Your task to perform on an android device: Search for seafood restaurants on Google Maps Image 0: 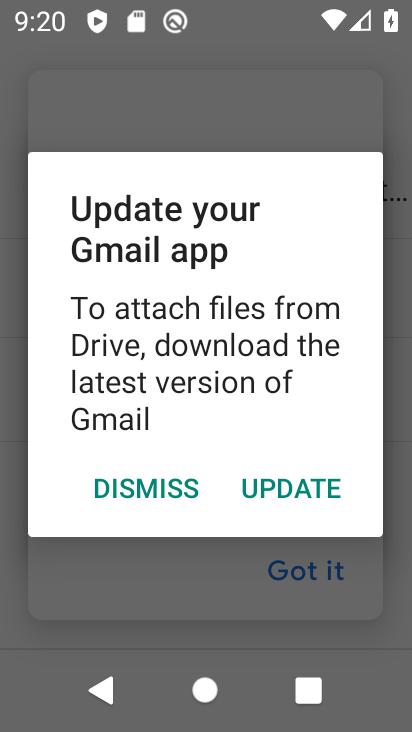
Step 0: press home button
Your task to perform on an android device: Search for seafood restaurants on Google Maps Image 1: 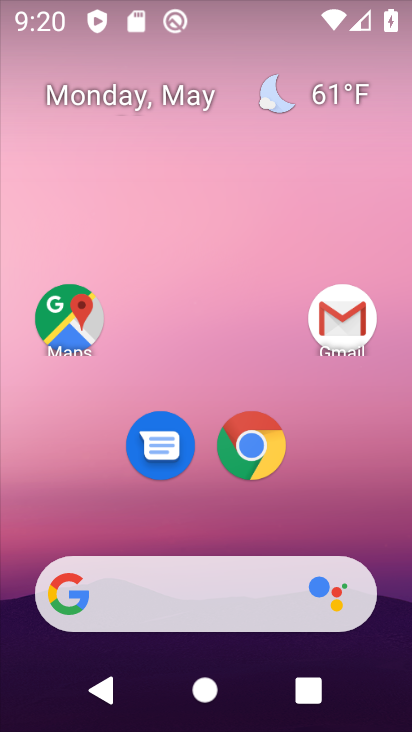
Step 1: drag from (387, 541) to (364, 194)
Your task to perform on an android device: Search for seafood restaurants on Google Maps Image 2: 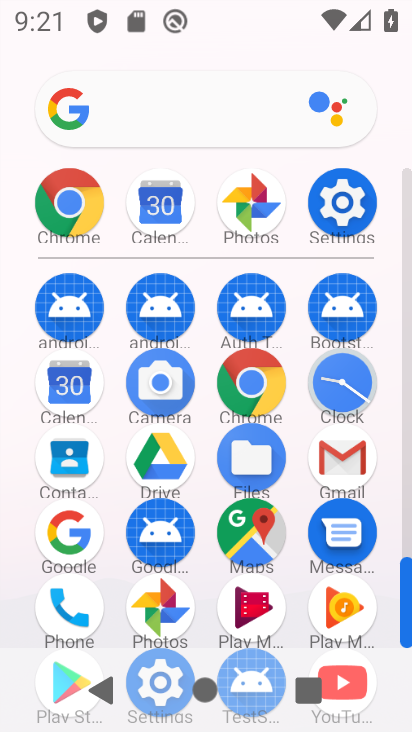
Step 2: click (264, 541)
Your task to perform on an android device: Search for seafood restaurants on Google Maps Image 3: 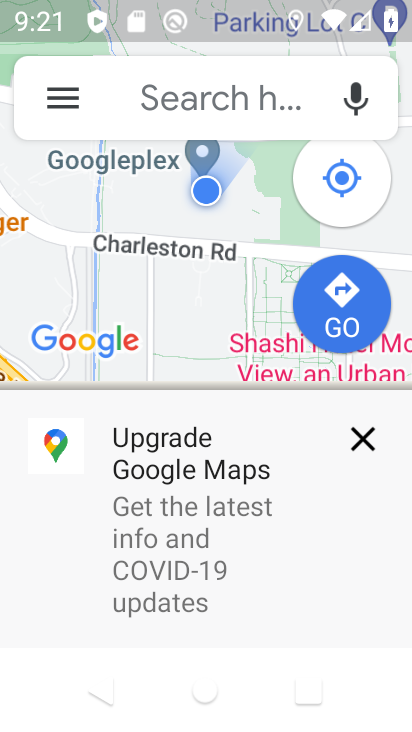
Step 3: click (229, 115)
Your task to perform on an android device: Search for seafood restaurants on Google Maps Image 4: 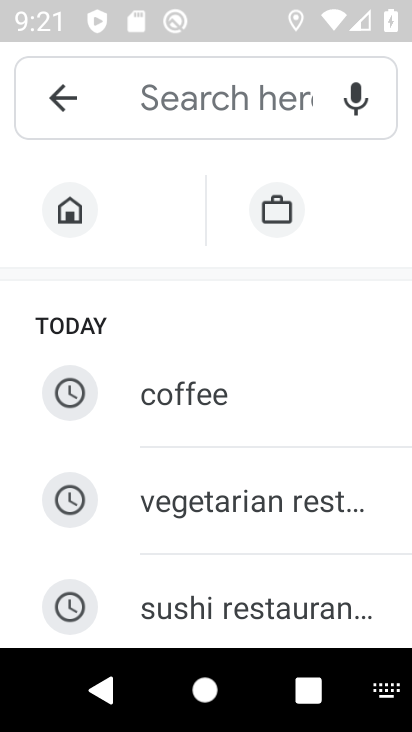
Step 4: type "seafood restaurants"
Your task to perform on an android device: Search for seafood restaurants on Google Maps Image 5: 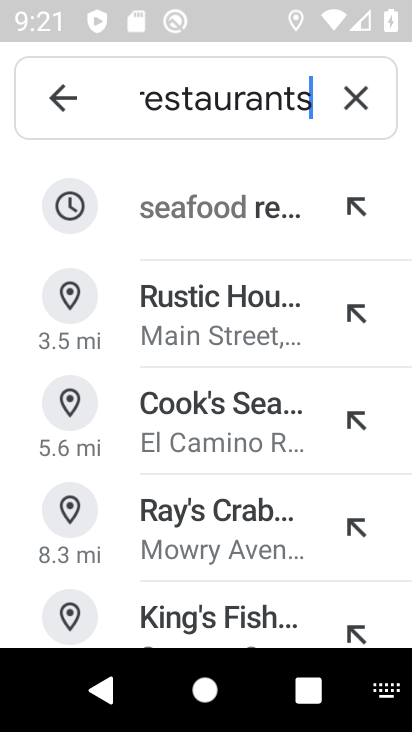
Step 5: click (262, 209)
Your task to perform on an android device: Search for seafood restaurants on Google Maps Image 6: 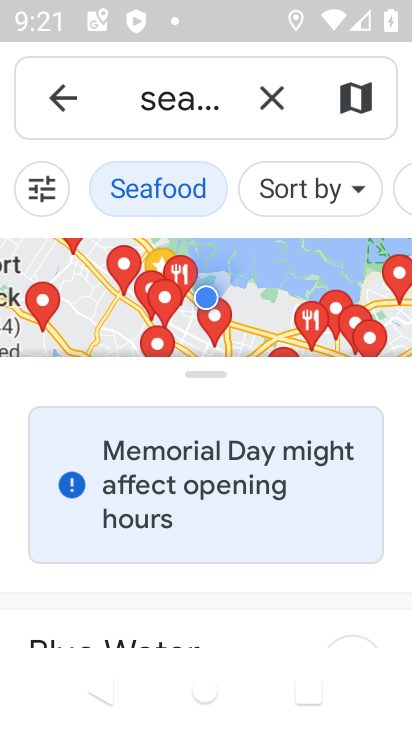
Step 6: task complete